Your task to perform on an android device: turn off notifications in google photos Image 0: 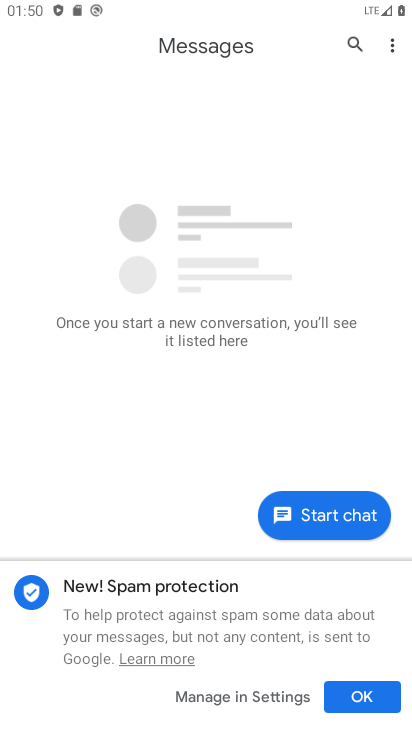
Step 0: press home button
Your task to perform on an android device: turn off notifications in google photos Image 1: 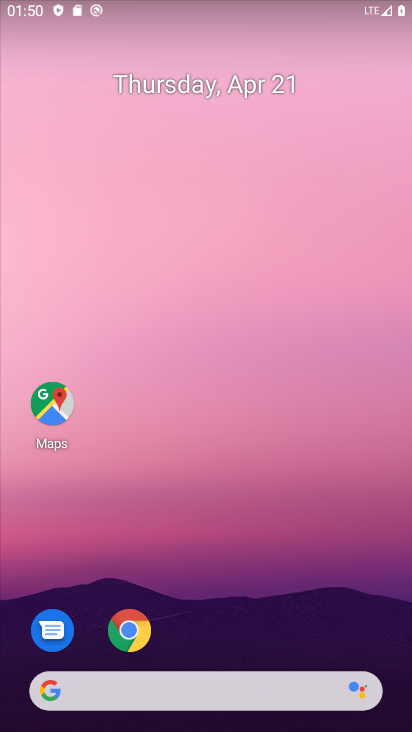
Step 1: drag from (191, 568) to (90, 9)
Your task to perform on an android device: turn off notifications in google photos Image 2: 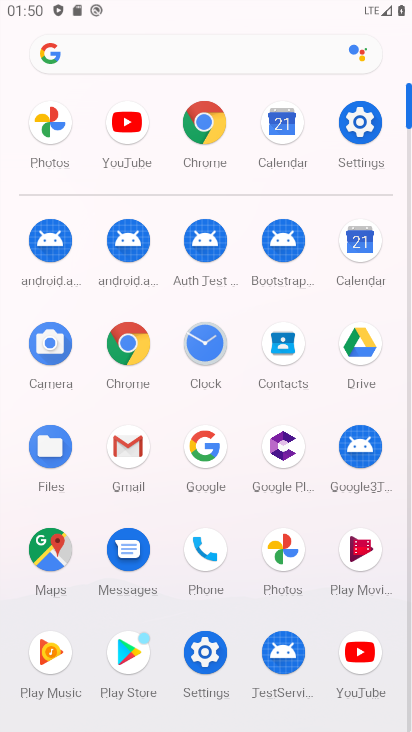
Step 2: click (55, 131)
Your task to perform on an android device: turn off notifications in google photos Image 3: 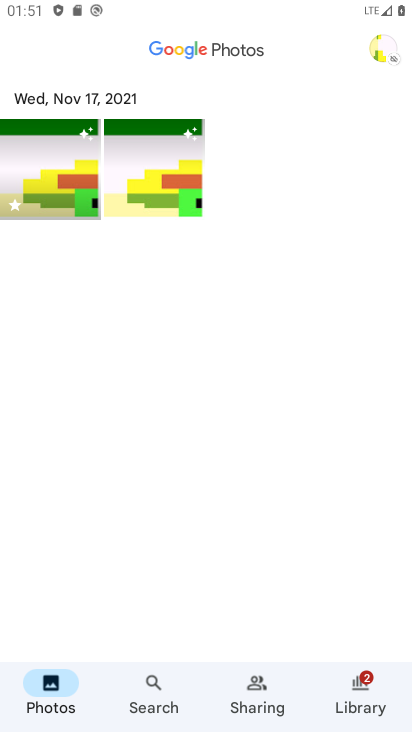
Step 3: click (366, 687)
Your task to perform on an android device: turn off notifications in google photos Image 4: 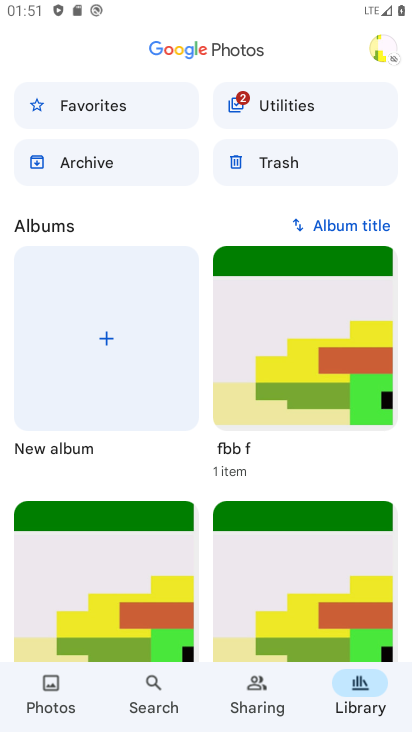
Step 4: click (382, 50)
Your task to perform on an android device: turn off notifications in google photos Image 5: 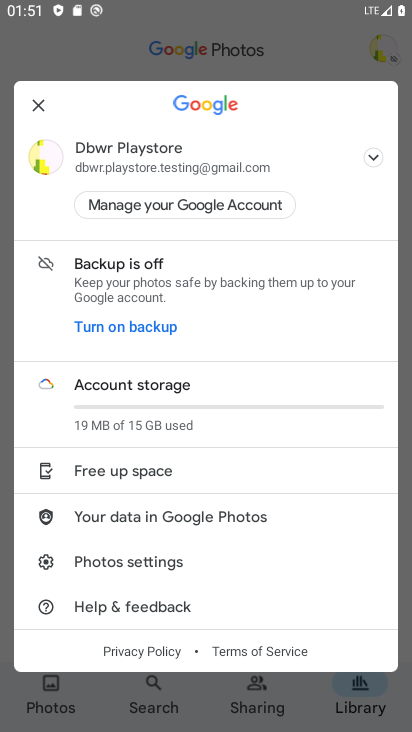
Step 5: click (205, 557)
Your task to perform on an android device: turn off notifications in google photos Image 6: 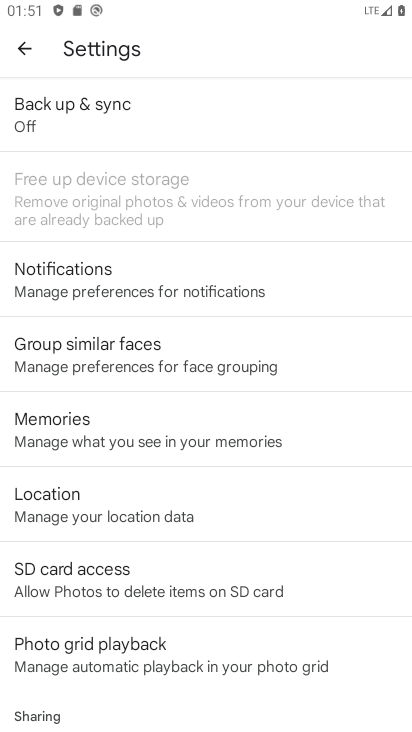
Step 6: click (190, 265)
Your task to perform on an android device: turn off notifications in google photos Image 7: 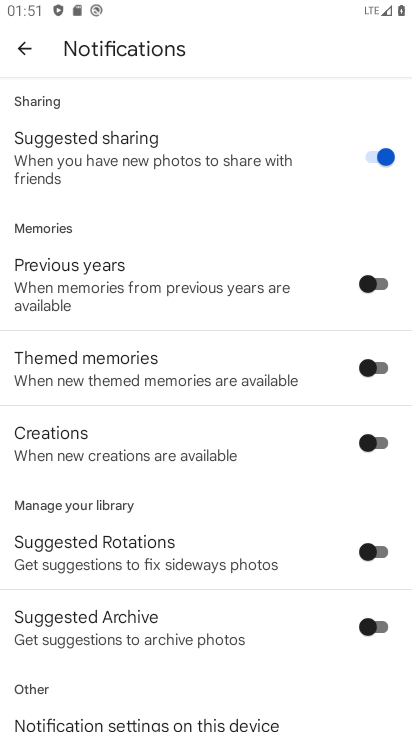
Step 7: click (257, 159)
Your task to perform on an android device: turn off notifications in google photos Image 8: 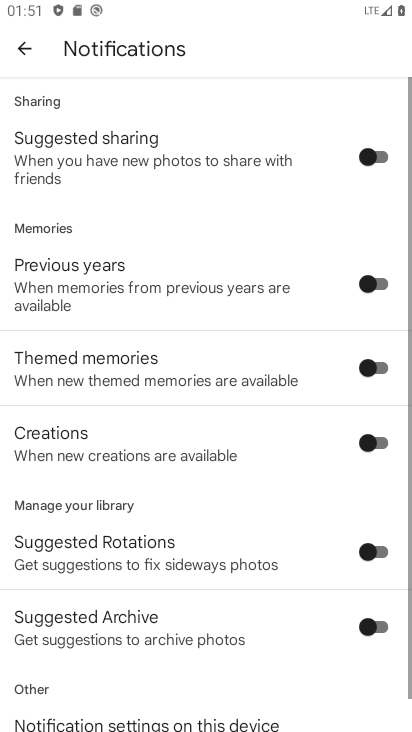
Step 8: task complete